Your task to perform on an android device: Open battery settings Image 0: 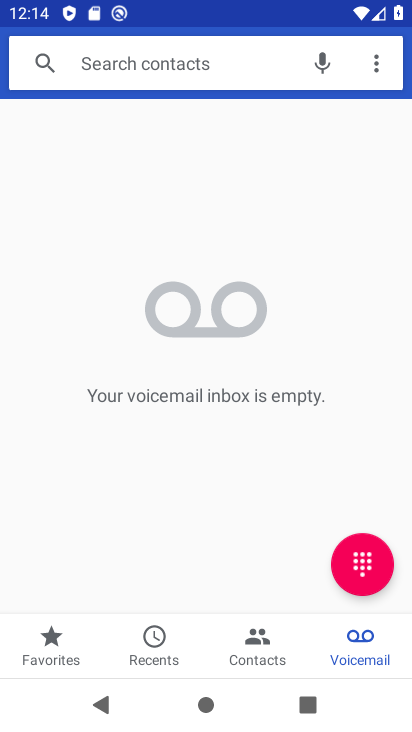
Step 0: press home button
Your task to perform on an android device: Open battery settings Image 1: 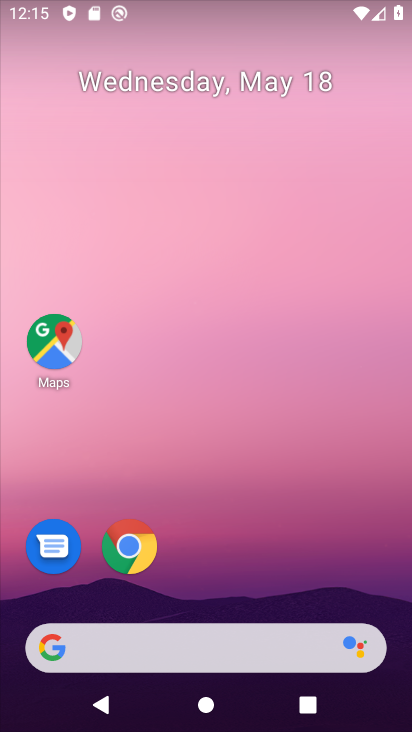
Step 1: drag from (219, 554) to (308, 128)
Your task to perform on an android device: Open battery settings Image 2: 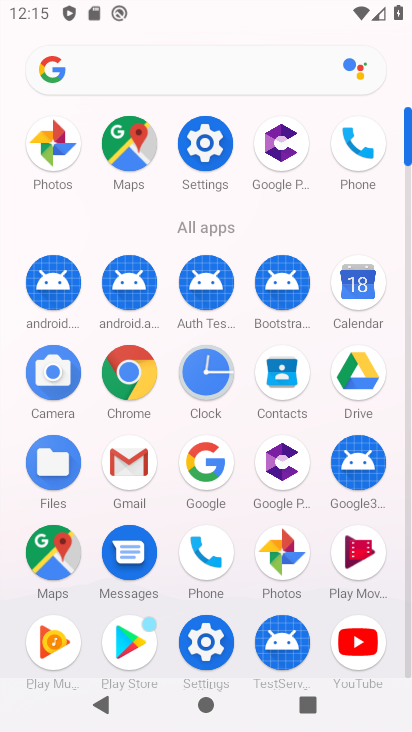
Step 2: click (202, 152)
Your task to perform on an android device: Open battery settings Image 3: 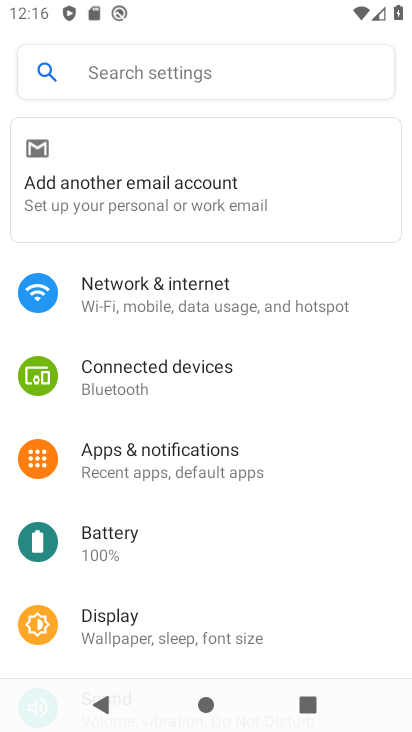
Step 3: click (89, 547)
Your task to perform on an android device: Open battery settings Image 4: 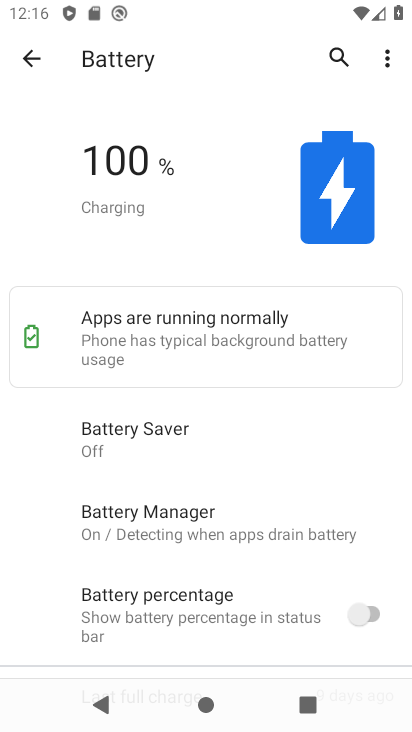
Step 4: task complete